Your task to perform on an android device: see sites visited before in the chrome app Image 0: 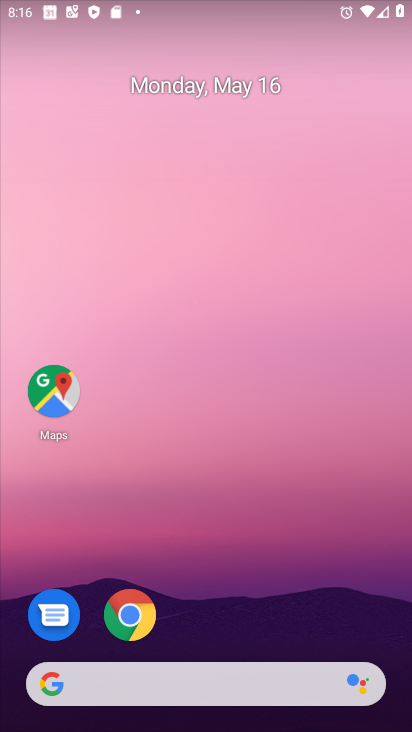
Step 0: click (131, 615)
Your task to perform on an android device: see sites visited before in the chrome app Image 1: 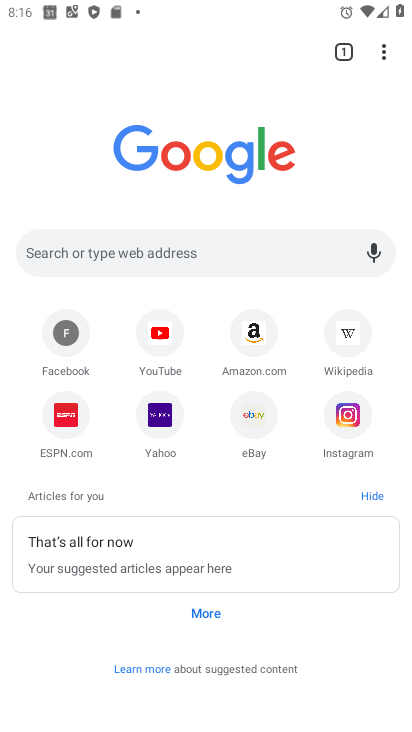
Step 1: click (396, 52)
Your task to perform on an android device: see sites visited before in the chrome app Image 2: 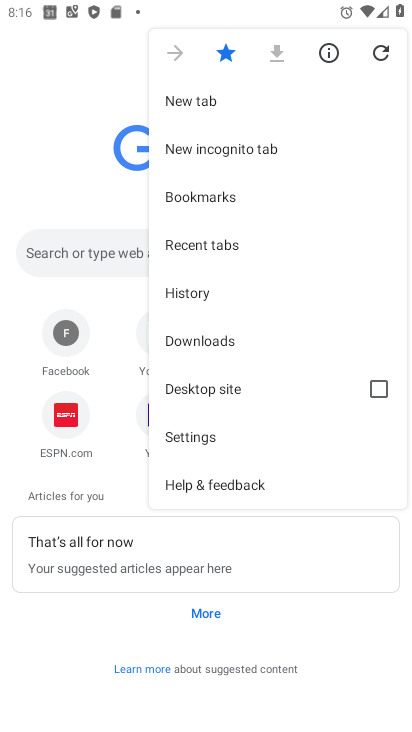
Step 2: click (235, 244)
Your task to perform on an android device: see sites visited before in the chrome app Image 3: 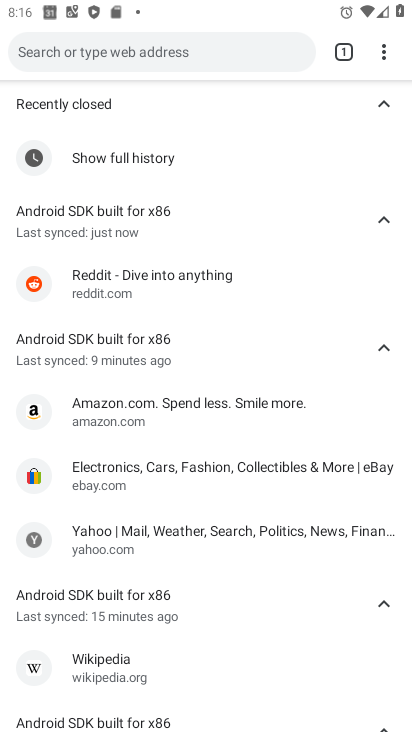
Step 3: task complete